Your task to perform on an android device: turn off notifications settings in the gmail app Image 0: 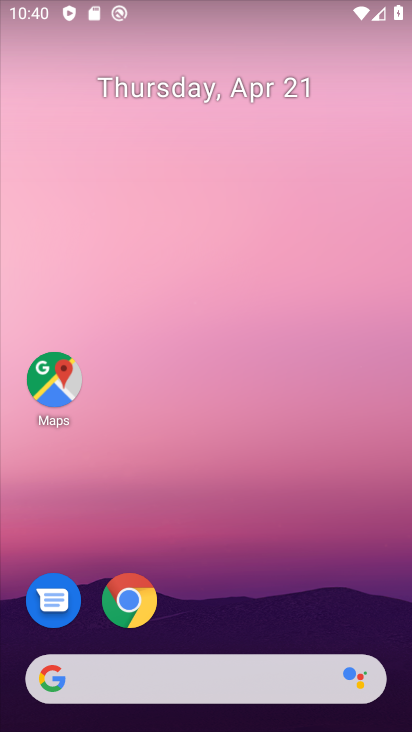
Step 0: drag from (318, 583) to (319, 41)
Your task to perform on an android device: turn off notifications settings in the gmail app Image 1: 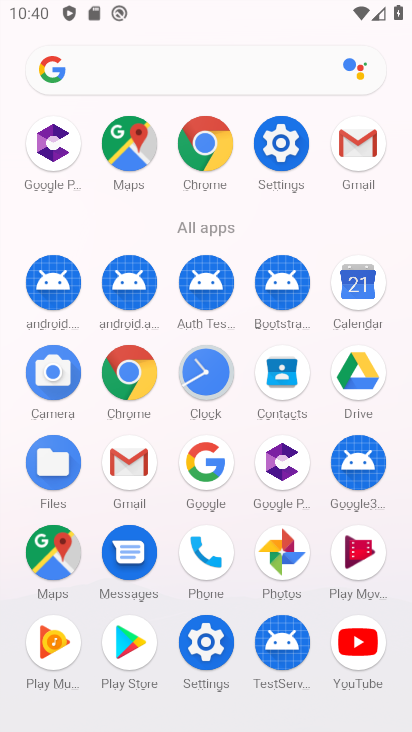
Step 1: click (362, 132)
Your task to perform on an android device: turn off notifications settings in the gmail app Image 2: 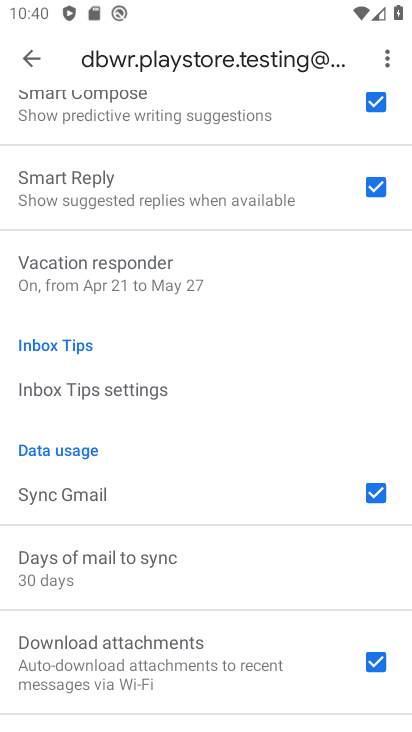
Step 2: drag from (168, 279) to (116, 603)
Your task to perform on an android device: turn off notifications settings in the gmail app Image 3: 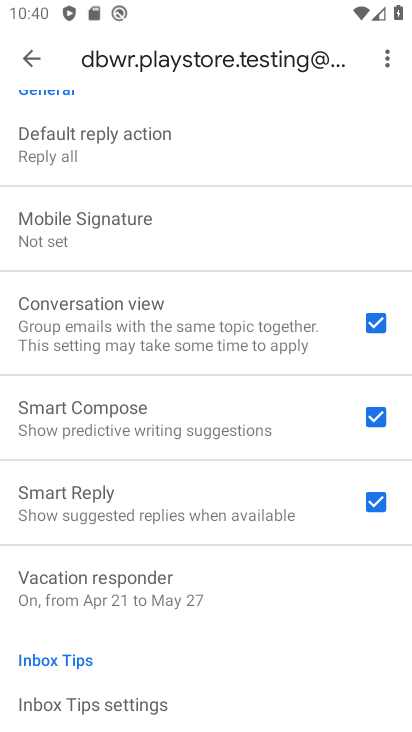
Step 3: drag from (208, 358) to (216, 613)
Your task to perform on an android device: turn off notifications settings in the gmail app Image 4: 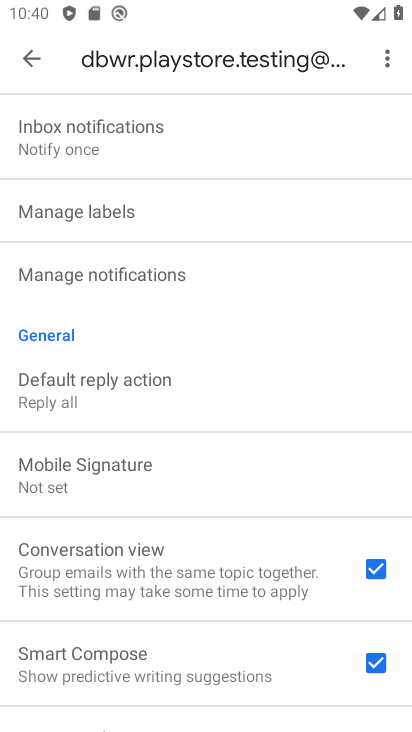
Step 4: drag from (275, 308) to (262, 645)
Your task to perform on an android device: turn off notifications settings in the gmail app Image 5: 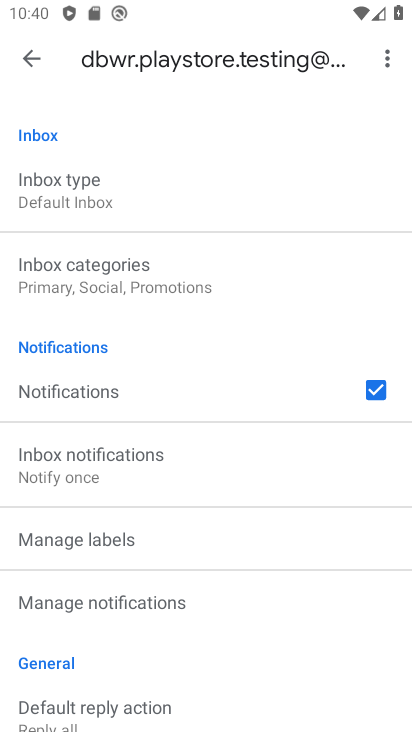
Step 5: drag from (311, 259) to (298, 621)
Your task to perform on an android device: turn off notifications settings in the gmail app Image 6: 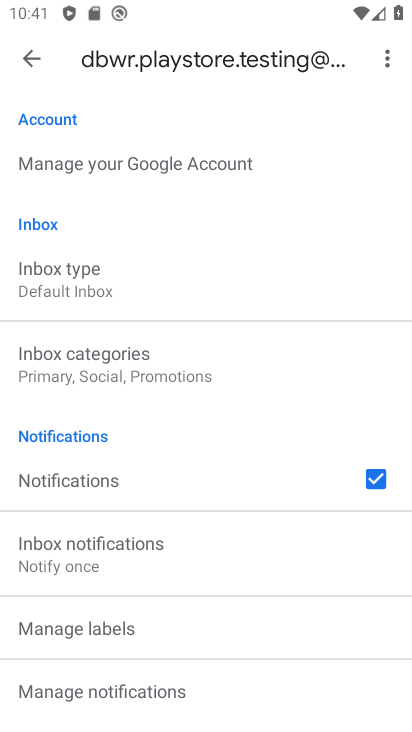
Step 6: click (384, 468)
Your task to perform on an android device: turn off notifications settings in the gmail app Image 7: 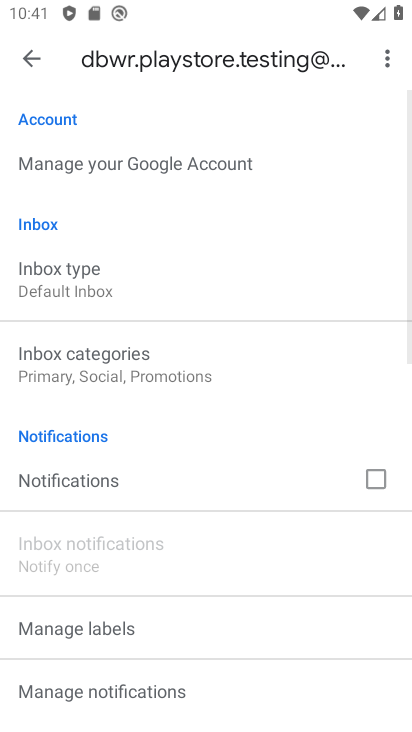
Step 7: task complete